Your task to perform on an android device: Open internet settings Image 0: 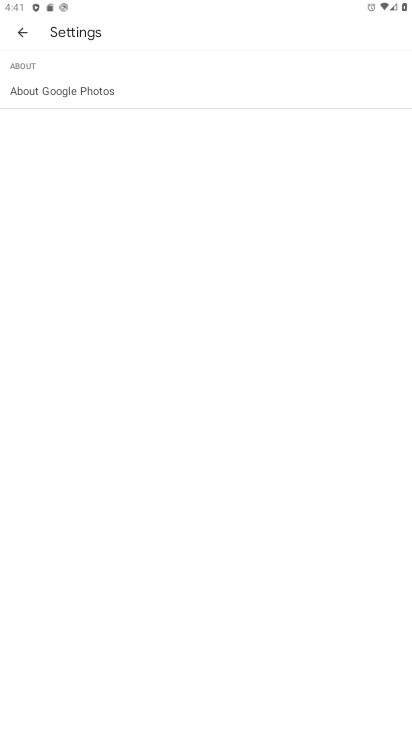
Step 0: press home button
Your task to perform on an android device: Open internet settings Image 1: 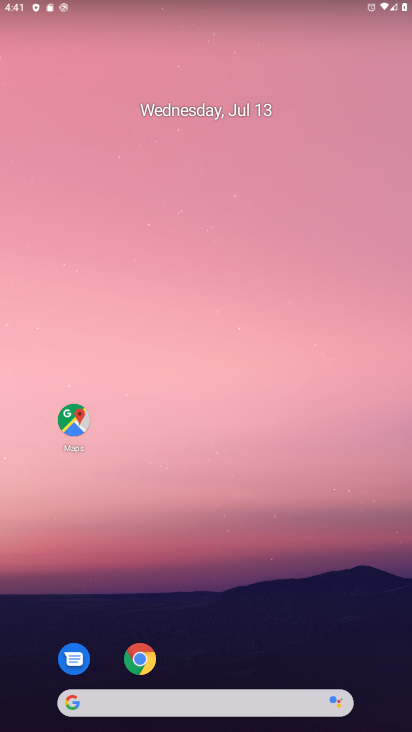
Step 1: drag from (282, 611) to (206, 55)
Your task to perform on an android device: Open internet settings Image 2: 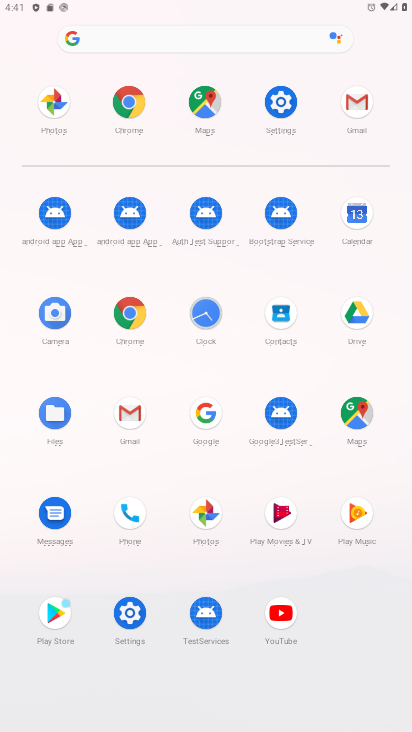
Step 2: click (288, 106)
Your task to perform on an android device: Open internet settings Image 3: 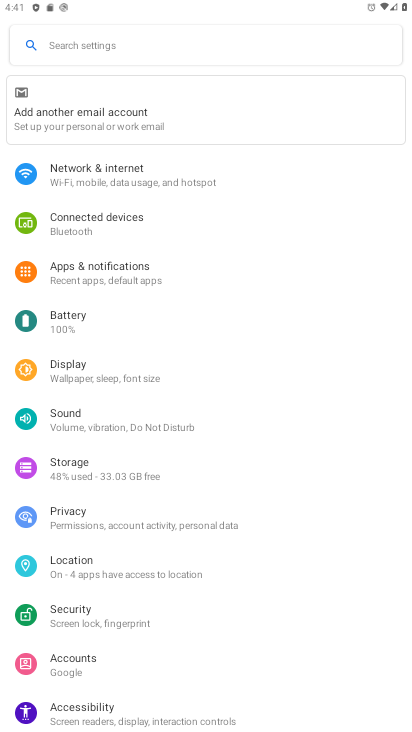
Step 3: click (76, 170)
Your task to perform on an android device: Open internet settings Image 4: 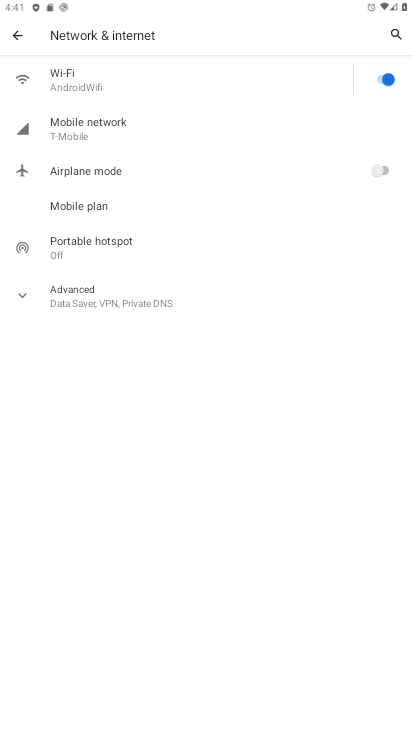
Step 4: click (92, 299)
Your task to perform on an android device: Open internet settings Image 5: 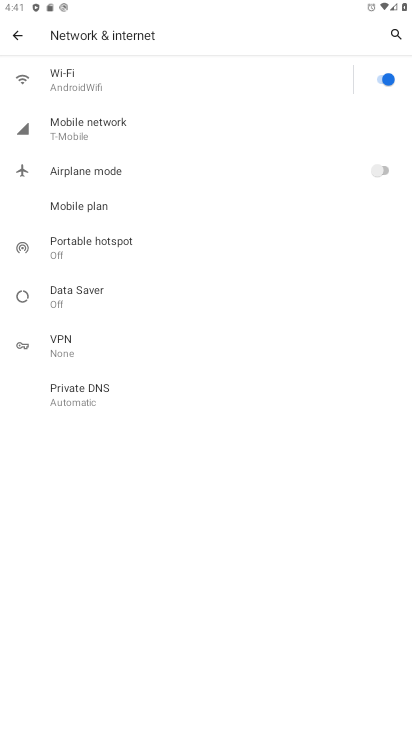
Step 5: task complete